Your task to perform on an android device: Go to settings Image 0: 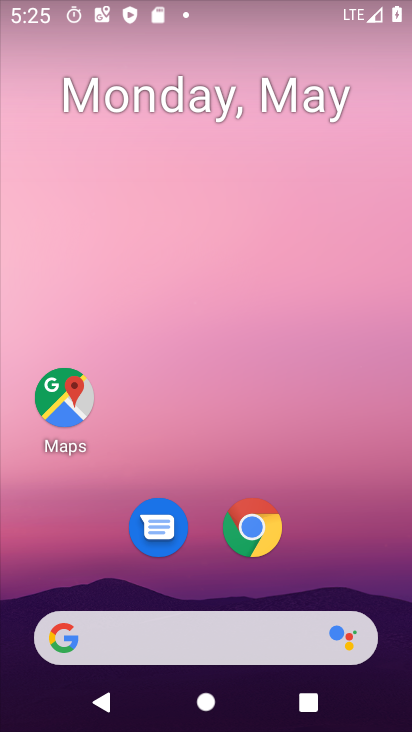
Step 0: drag from (385, 628) to (317, 110)
Your task to perform on an android device: Go to settings Image 1: 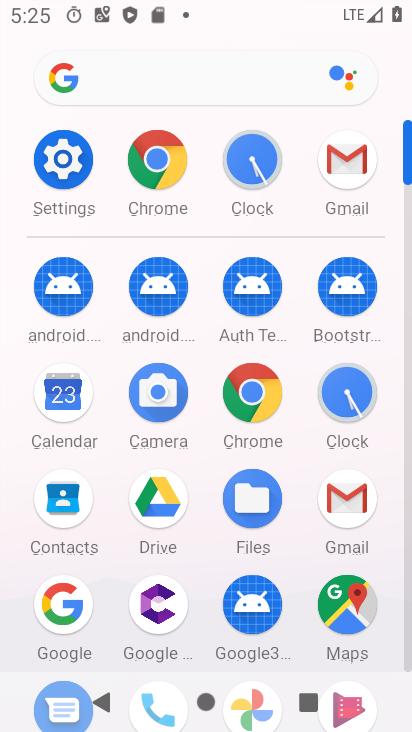
Step 1: click (56, 156)
Your task to perform on an android device: Go to settings Image 2: 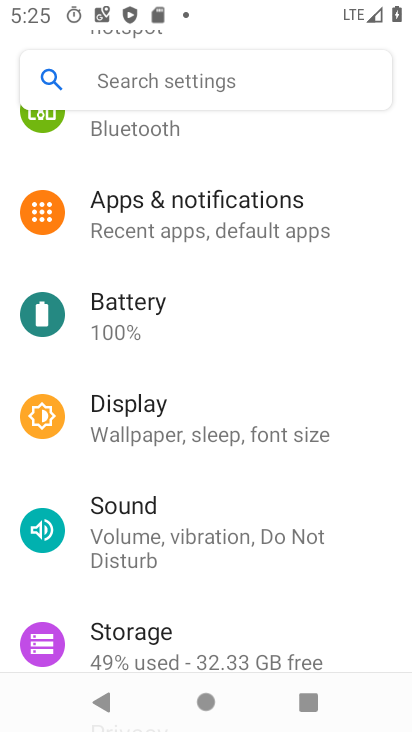
Step 2: task complete